Your task to perform on an android device: Open the calendar app, open the side menu, and click the "Day" option Image 0: 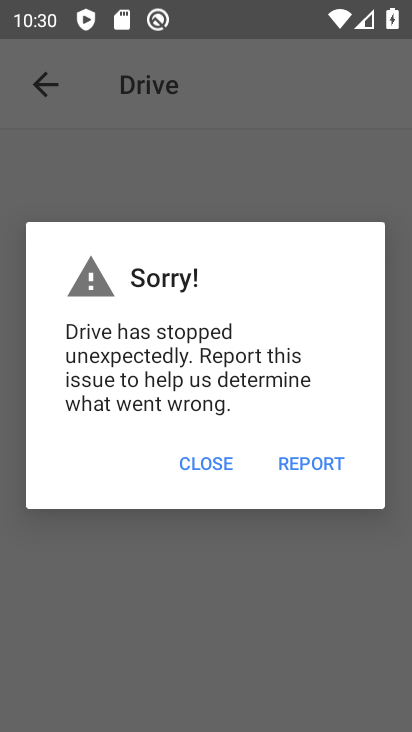
Step 0: press home button
Your task to perform on an android device: Open the calendar app, open the side menu, and click the "Day" option Image 1: 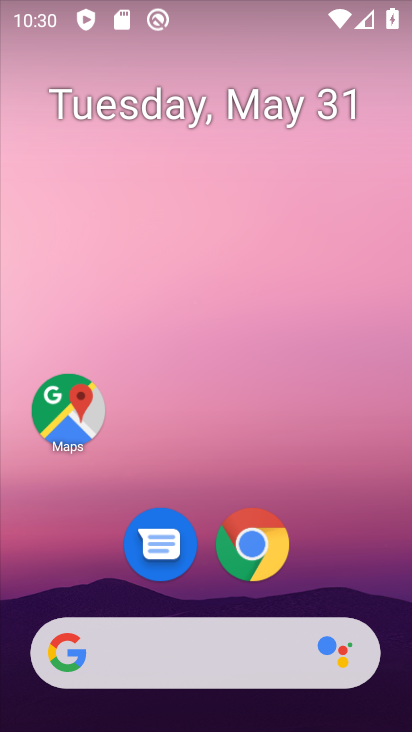
Step 1: drag from (197, 574) to (198, 142)
Your task to perform on an android device: Open the calendar app, open the side menu, and click the "Day" option Image 2: 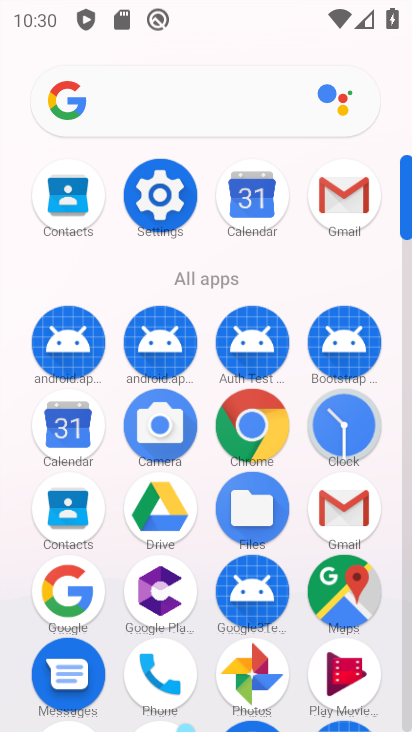
Step 2: click (252, 207)
Your task to perform on an android device: Open the calendar app, open the side menu, and click the "Day" option Image 3: 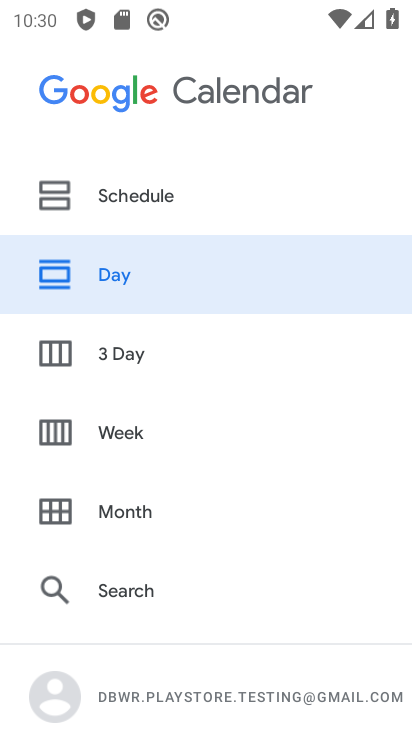
Step 3: click (102, 262)
Your task to perform on an android device: Open the calendar app, open the side menu, and click the "Day" option Image 4: 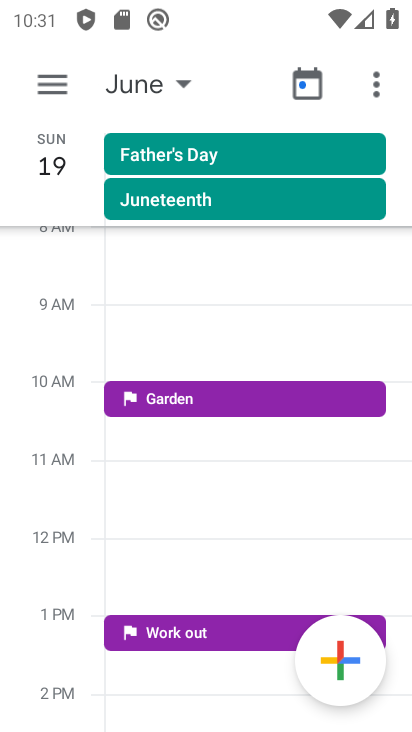
Step 4: task complete